Your task to perform on an android device: Open the map Image 0: 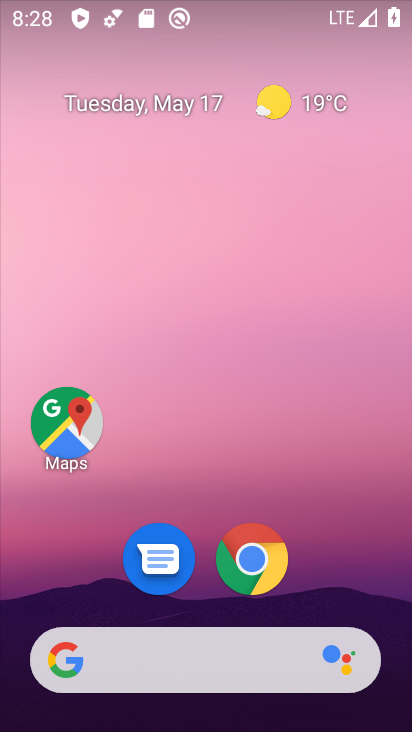
Step 0: drag from (200, 618) to (338, 35)
Your task to perform on an android device: Open the map Image 1: 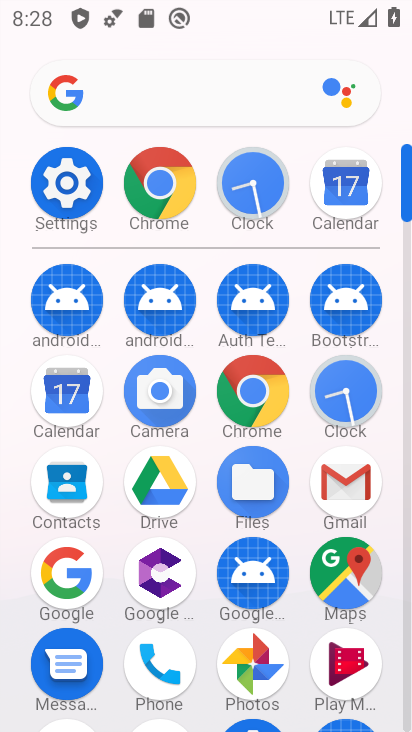
Step 1: click (341, 557)
Your task to perform on an android device: Open the map Image 2: 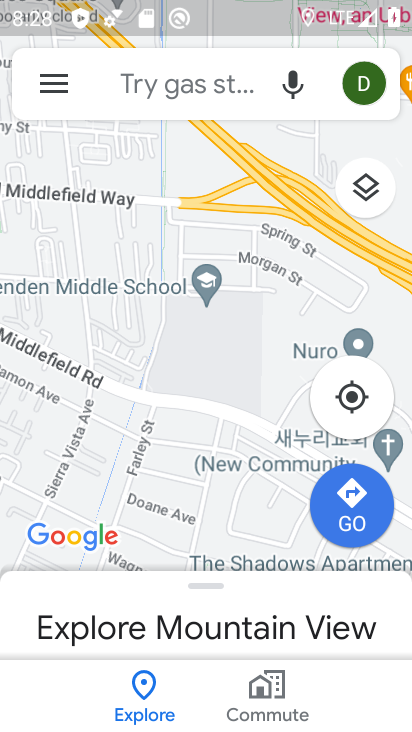
Step 2: task complete